Your task to perform on an android device: set the timer Image 0: 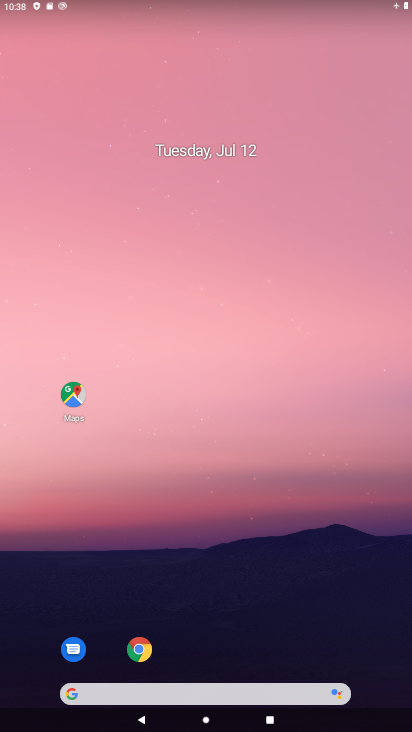
Step 0: drag from (394, 659) to (341, 36)
Your task to perform on an android device: set the timer Image 1: 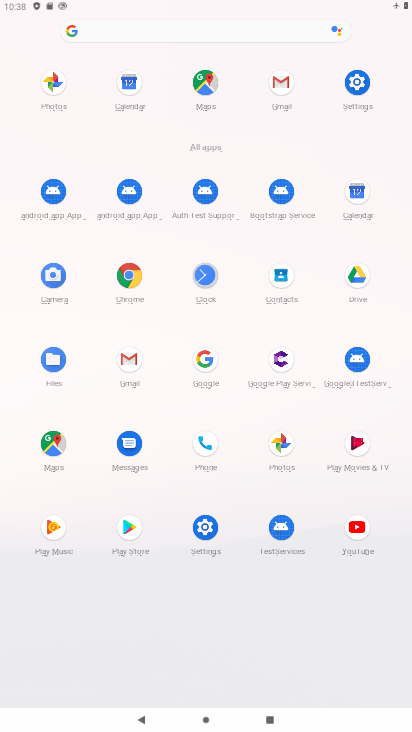
Step 1: click (205, 274)
Your task to perform on an android device: set the timer Image 2: 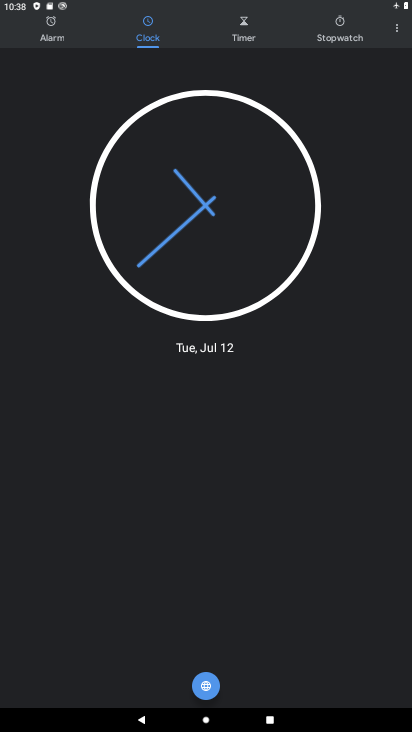
Step 2: click (246, 25)
Your task to perform on an android device: set the timer Image 3: 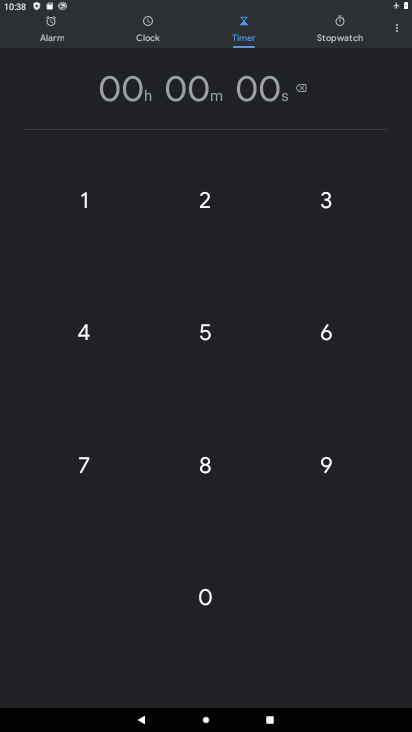
Step 3: task complete